Your task to perform on an android device: add a contact Image 0: 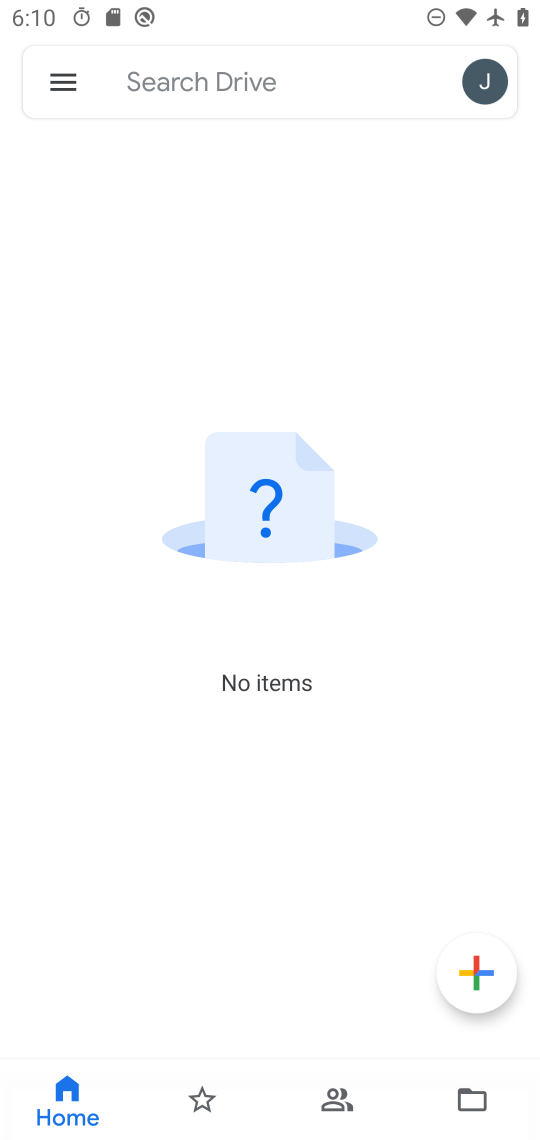
Step 0: press home button
Your task to perform on an android device: add a contact Image 1: 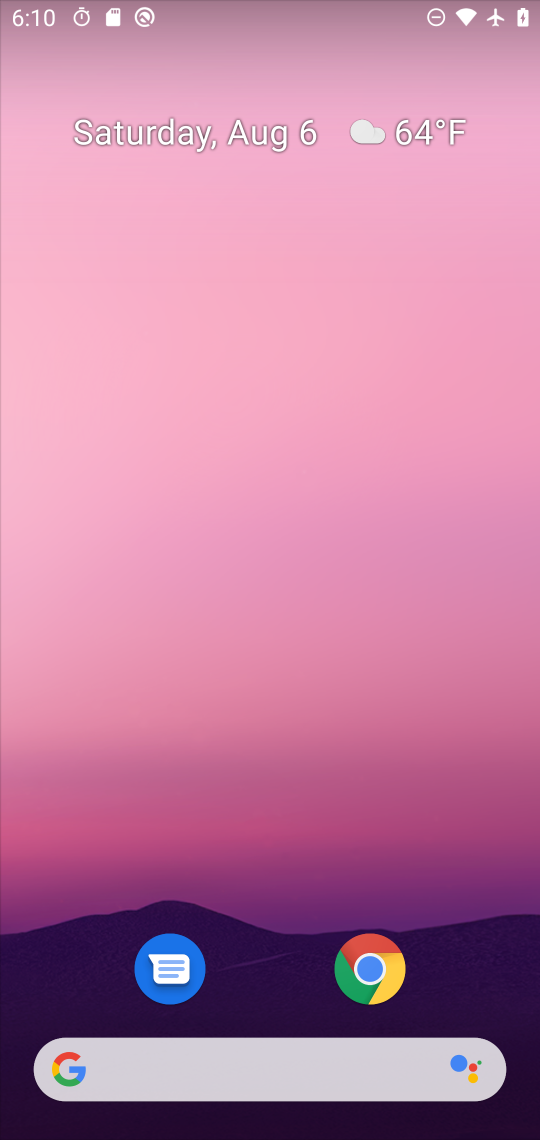
Step 1: drag from (262, 992) to (386, 123)
Your task to perform on an android device: add a contact Image 2: 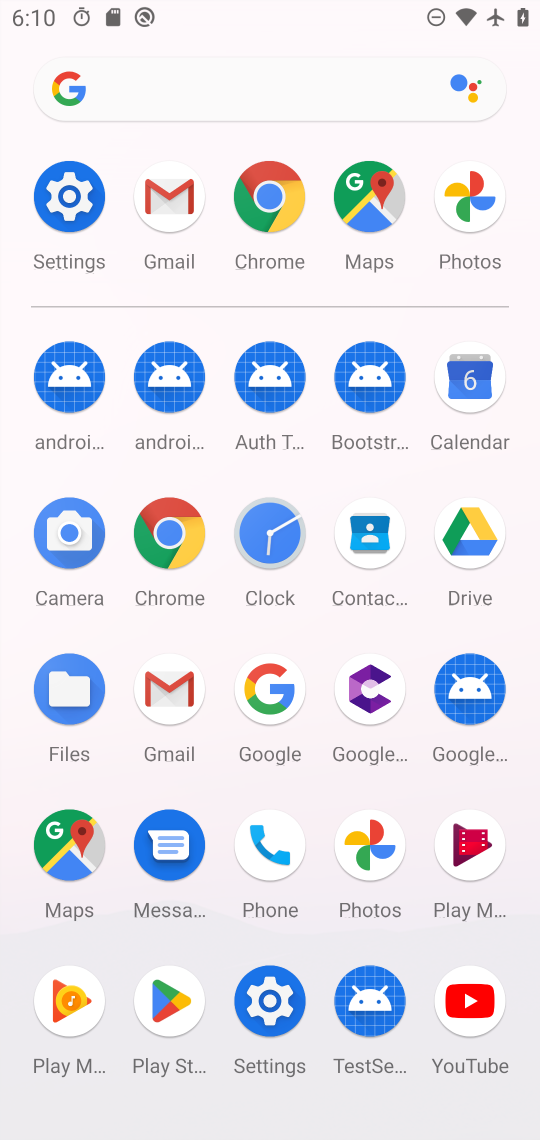
Step 2: click (362, 534)
Your task to perform on an android device: add a contact Image 3: 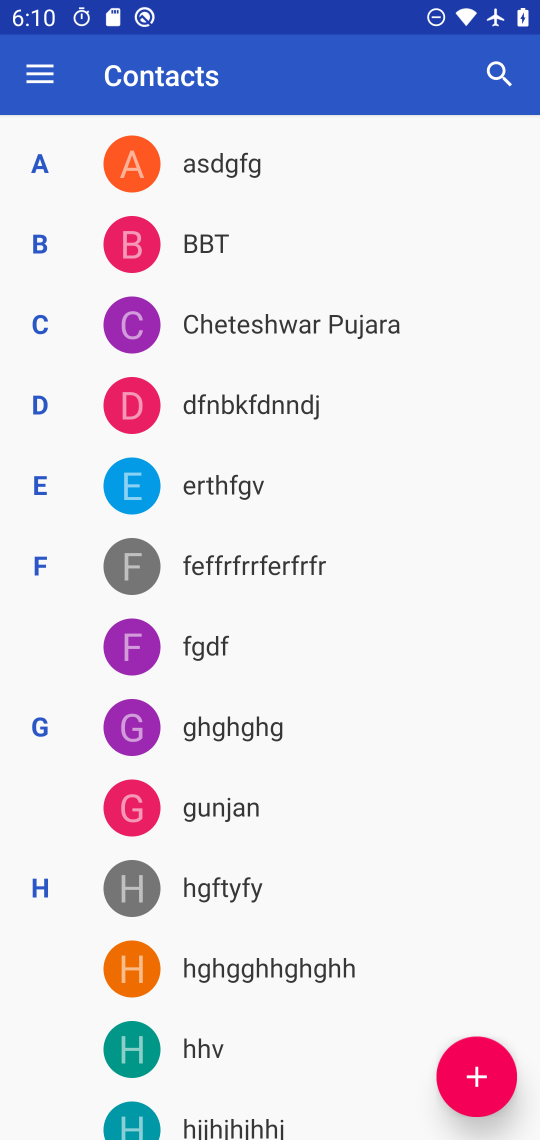
Step 3: click (477, 1082)
Your task to perform on an android device: add a contact Image 4: 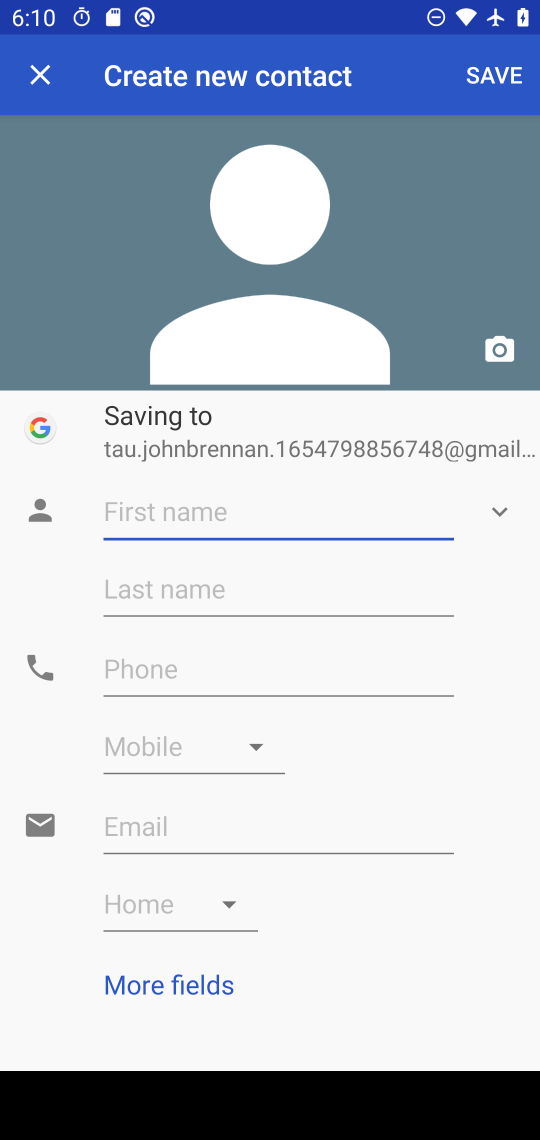
Step 4: type "hjhjhjhhj"
Your task to perform on an android device: add a contact Image 5: 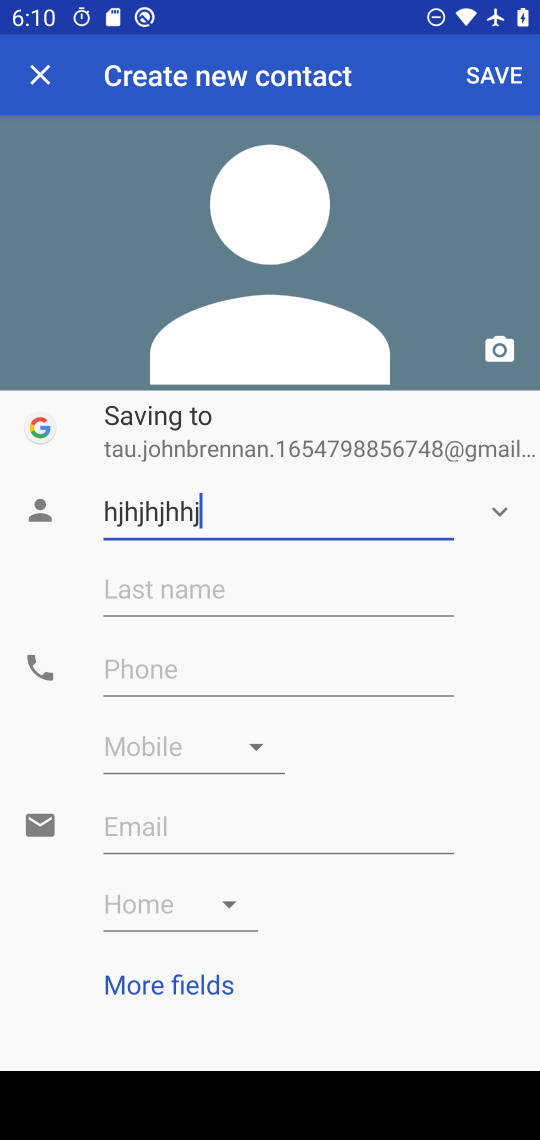
Step 5: click (213, 677)
Your task to perform on an android device: add a contact Image 6: 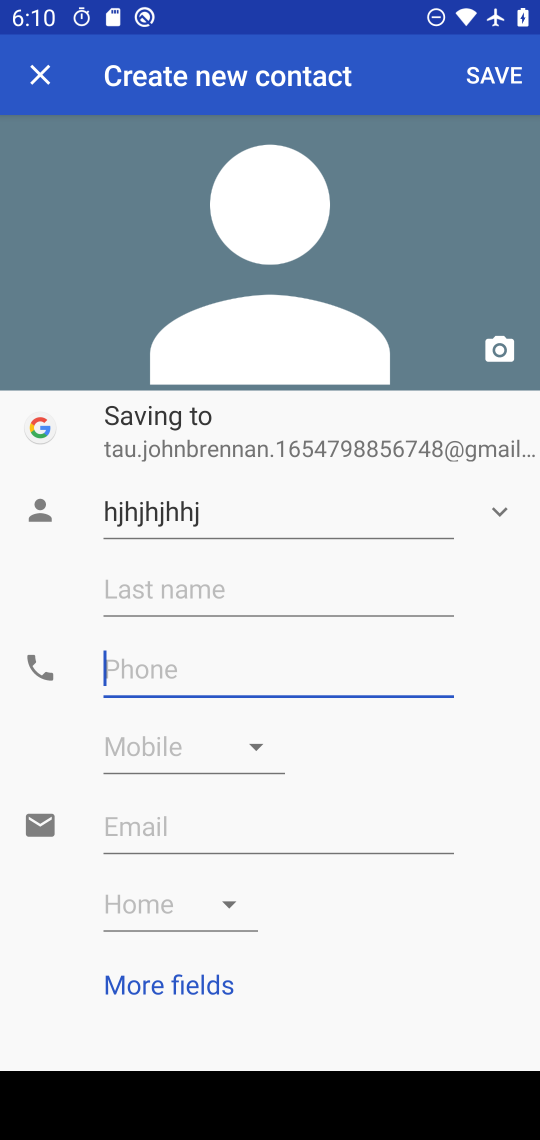
Step 6: type "878787"
Your task to perform on an android device: add a contact Image 7: 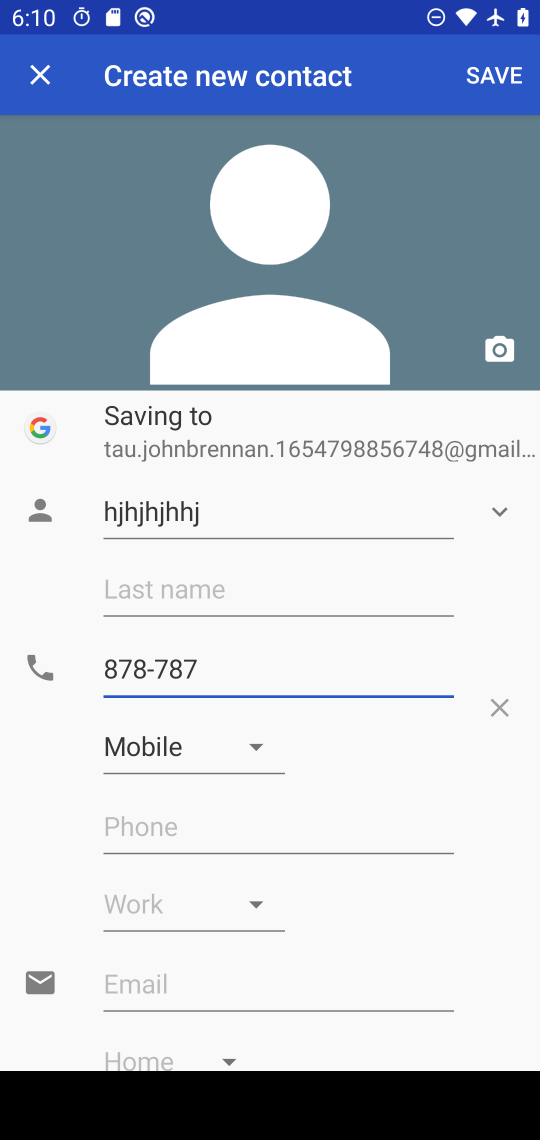
Step 7: click (493, 72)
Your task to perform on an android device: add a contact Image 8: 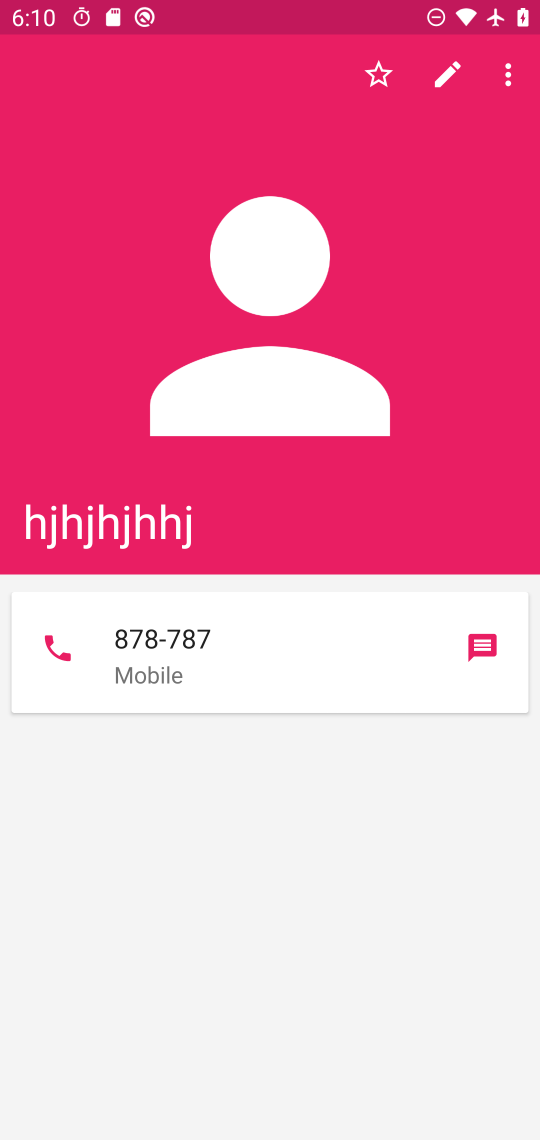
Step 8: task complete